Your task to perform on an android device: Open ESPN.com Image 0: 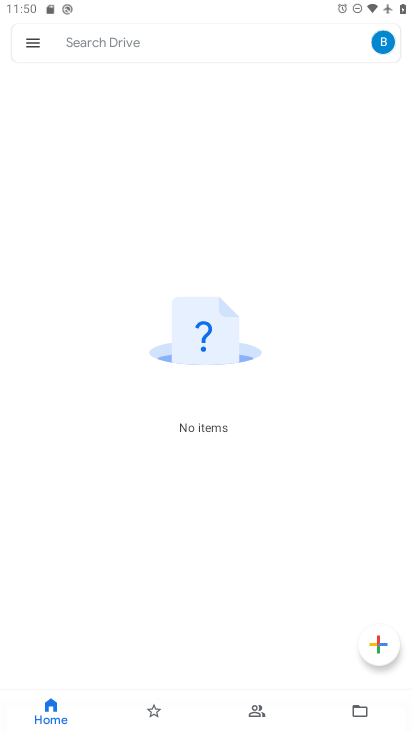
Step 0: press home button
Your task to perform on an android device: Open ESPN.com Image 1: 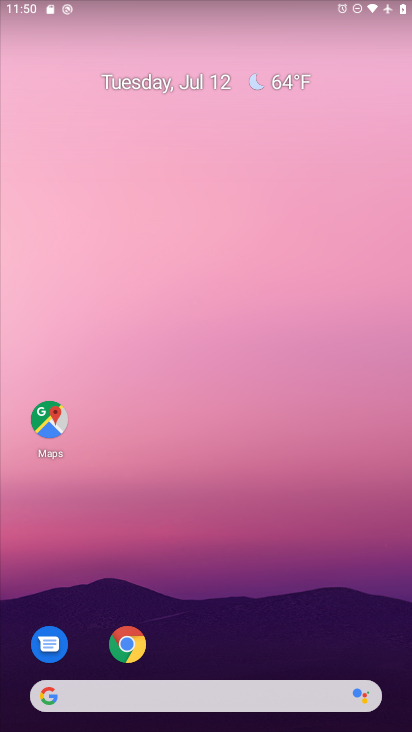
Step 1: drag from (282, 634) to (254, 298)
Your task to perform on an android device: Open ESPN.com Image 2: 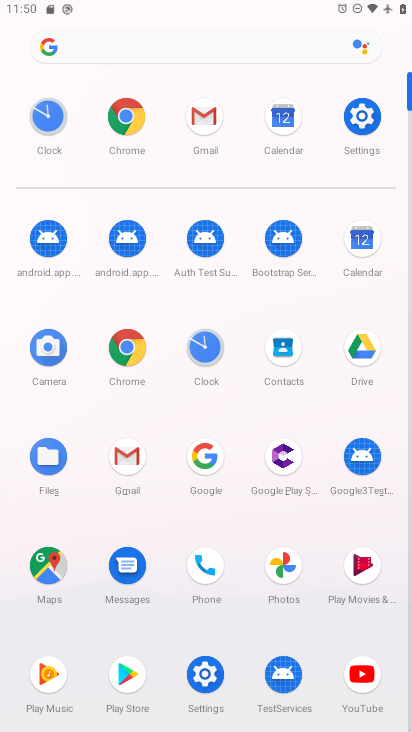
Step 2: click (127, 140)
Your task to perform on an android device: Open ESPN.com Image 3: 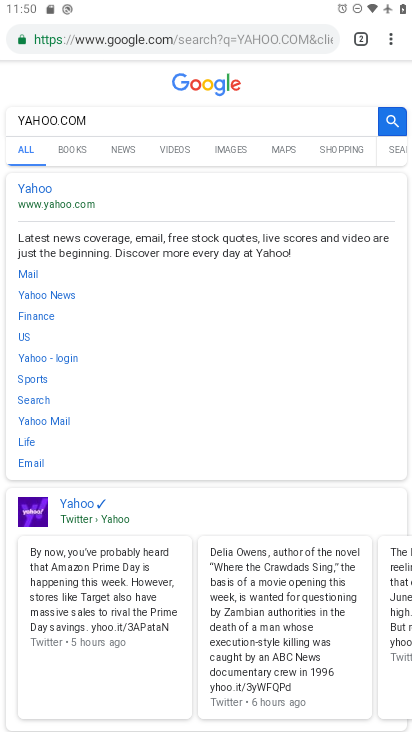
Step 3: type "ESPN.COM"
Your task to perform on an android device: Open ESPN.com Image 4: 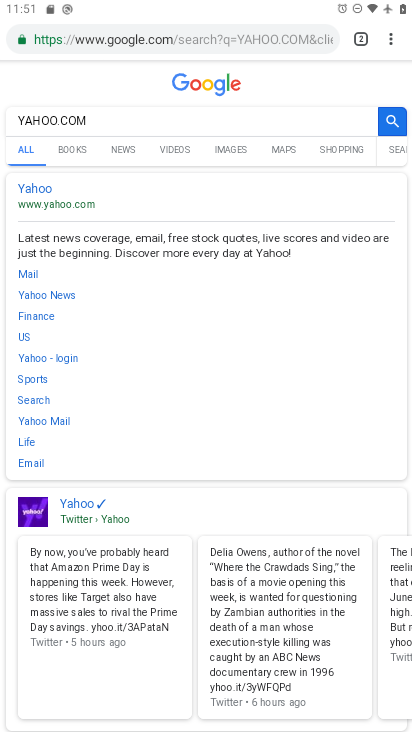
Step 4: click (205, 51)
Your task to perform on an android device: Open ESPN.com Image 5: 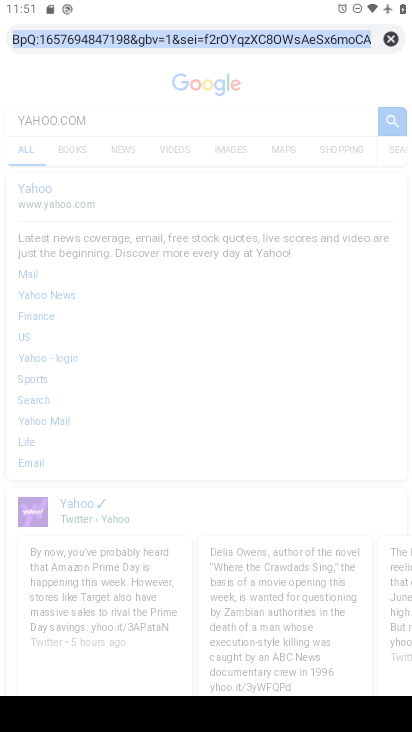
Step 5: type "ESPN.COM"
Your task to perform on an android device: Open ESPN.com Image 6: 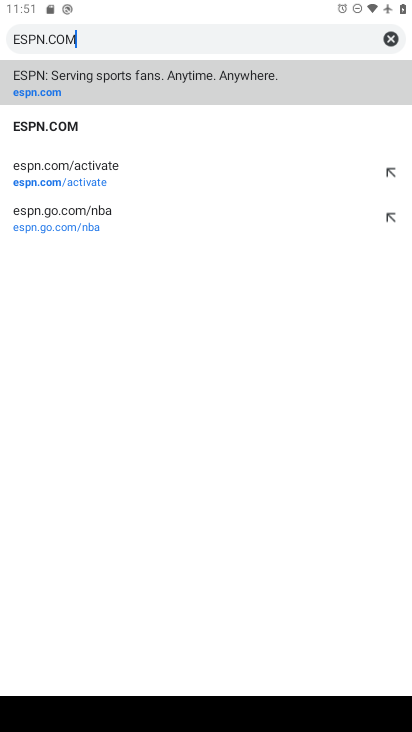
Step 6: click (196, 93)
Your task to perform on an android device: Open ESPN.com Image 7: 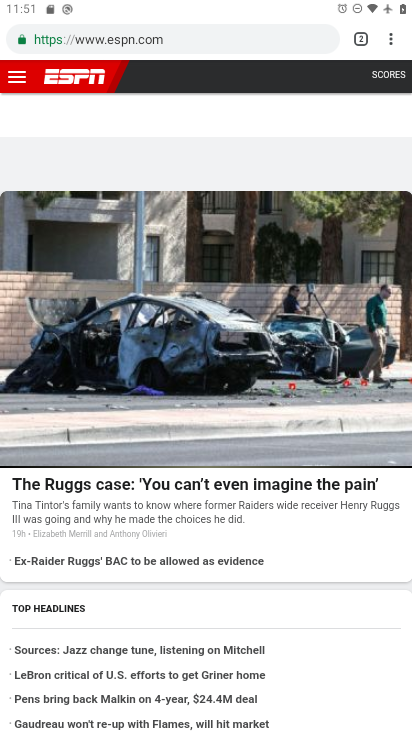
Step 7: task complete